Your task to perform on an android device: Go to location settings Image 0: 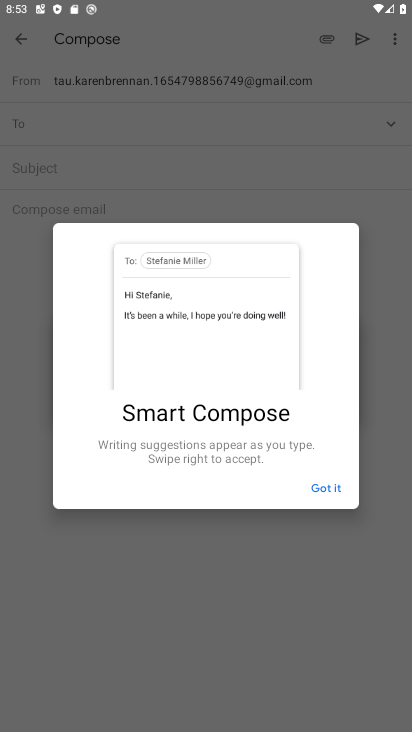
Step 0: press home button
Your task to perform on an android device: Go to location settings Image 1: 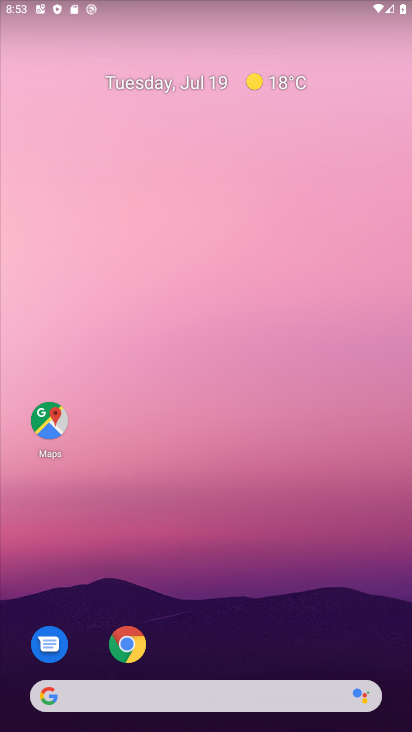
Step 1: drag from (225, 726) to (236, 243)
Your task to perform on an android device: Go to location settings Image 2: 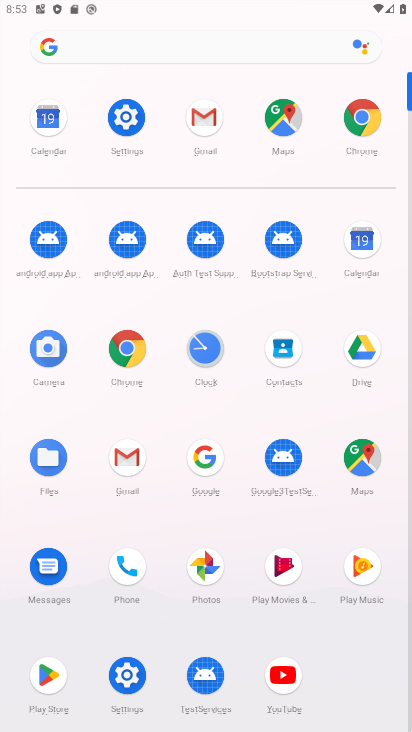
Step 2: click (129, 116)
Your task to perform on an android device: Go to location settings Image 3: 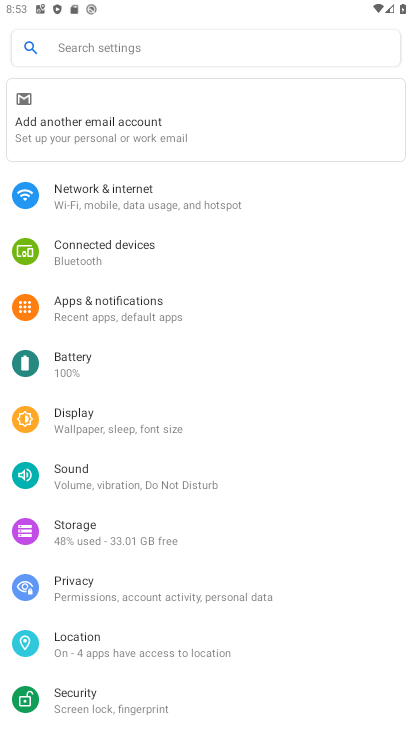
Step 3: click (73, 641)
Your task to perform on an android device: Go to location settings Image 4: 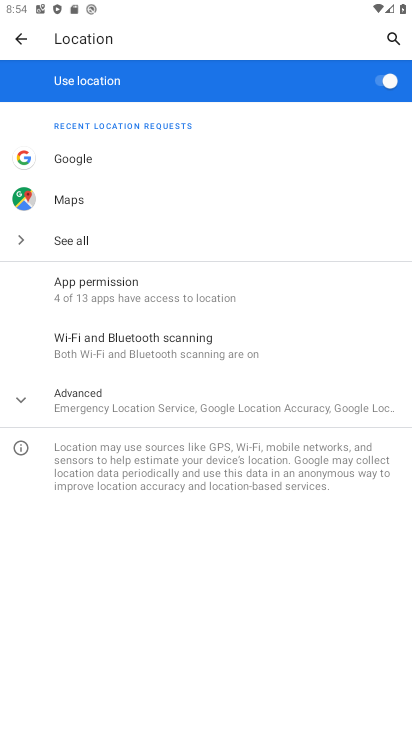
Step 4: task complete